Your task to perform on an android device: empty trash in the gmail app Image 0: 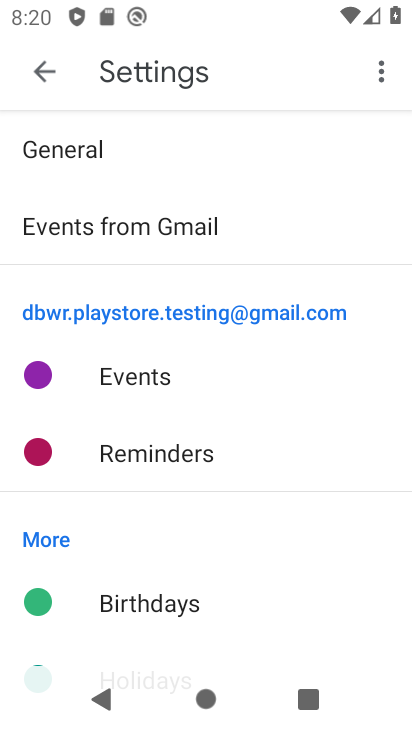
Step 0: press home button
Your task to perform on an android device: empty trash in the gmail app Image 1: 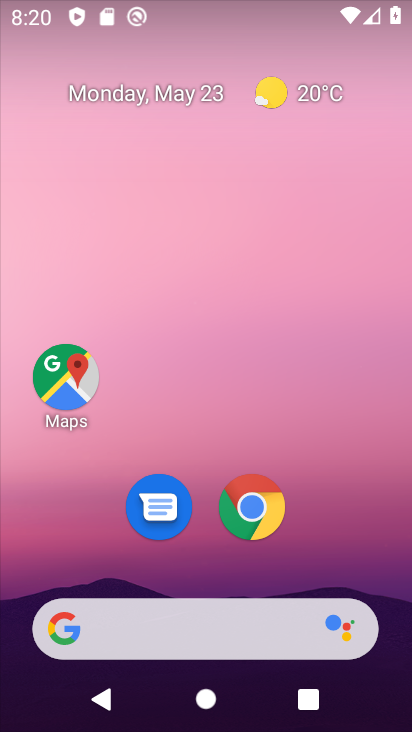
Step 1: drag from (372, 594) to (325, 17)
Your task to perform on an android device: empty trash in the gmail app Image 2: 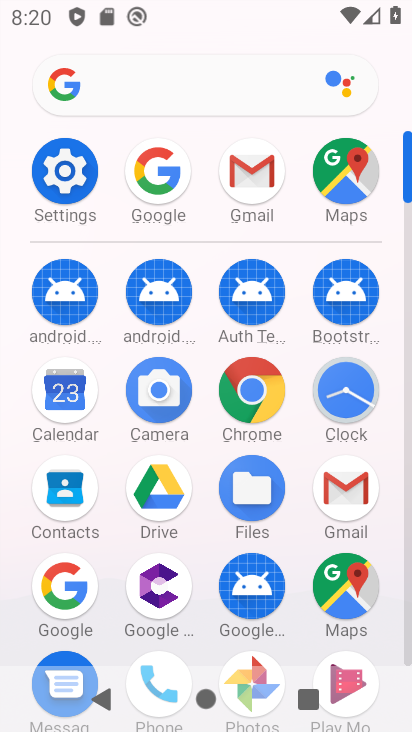
Step 2: click (245, 168)
Your task to perform on an android device: empty trash in the gmail app Image 3: 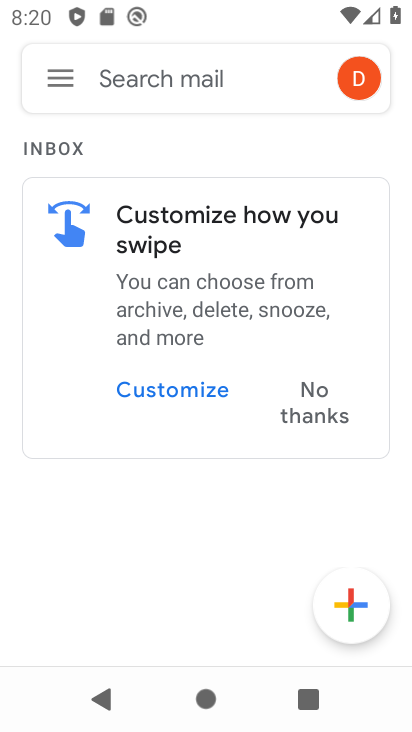
Step 3: click (50, 81)
Your task to perform on an android device: empty trash in the gmail app Image 4: 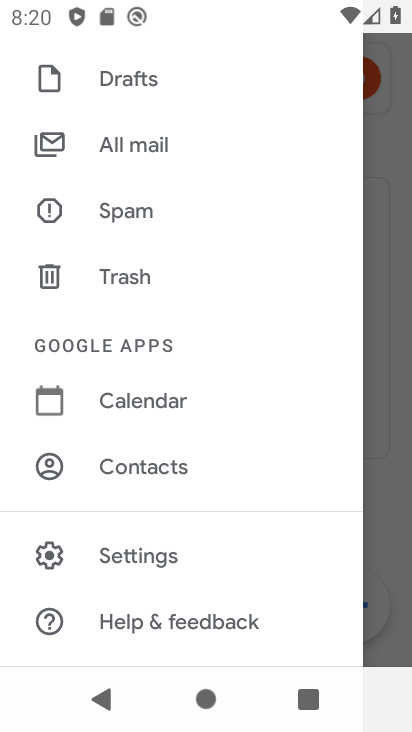
Step 4: click (96, 279)
Your task to perform on an android device: empty trash in the gmail app Image 5: 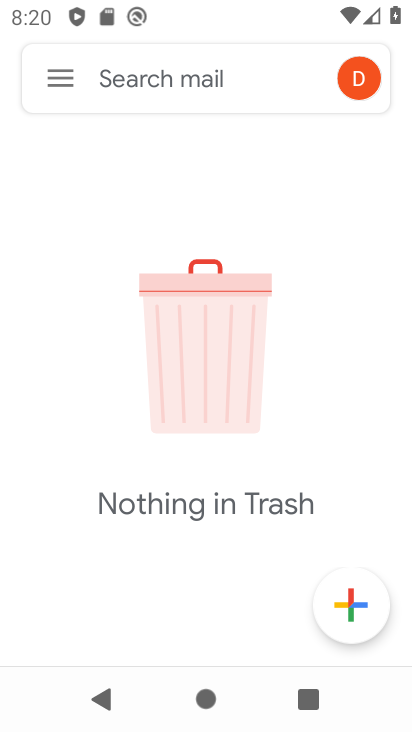
Step 5: task complete